Your task to perform on an android device: uninstall "NewsBreak: Local News & Alerts" Image 0: 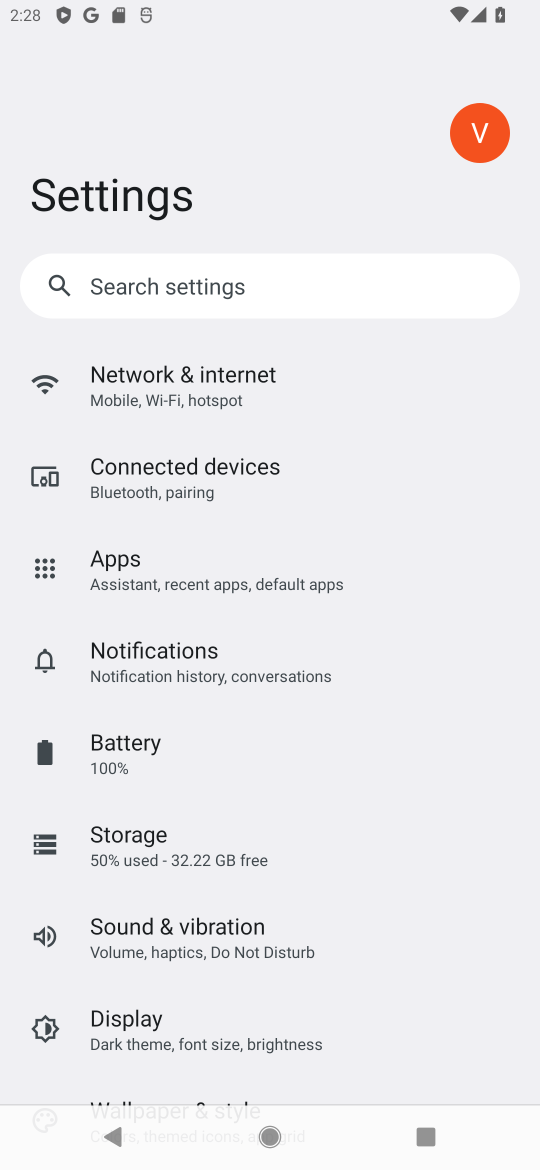
Step 0: press home button
Your task to perform on an android device: uninstall "NewsBreak: Local News & Alerts" Image 1: 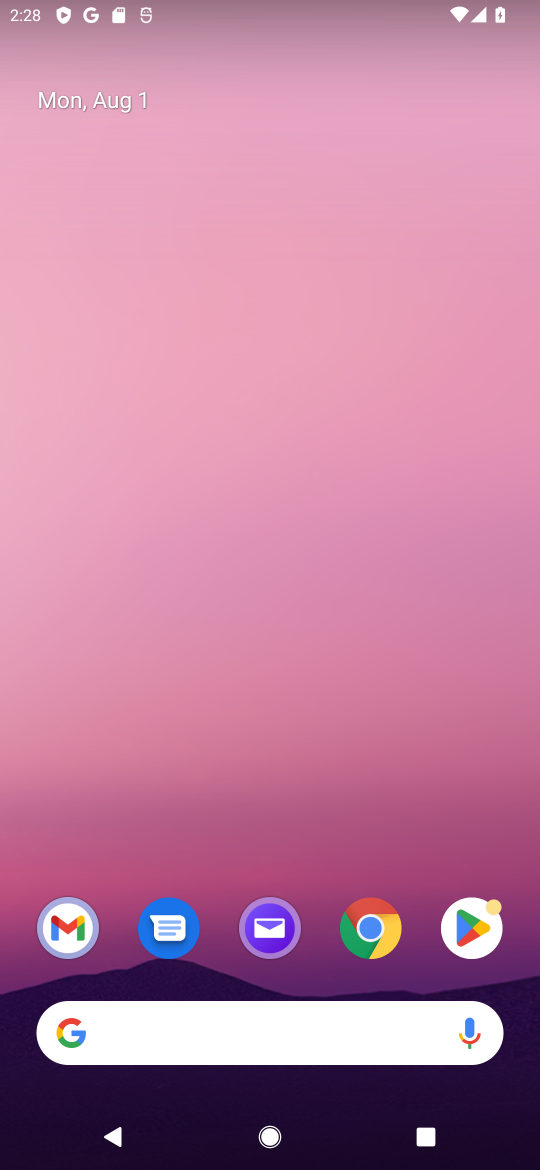
Step 1: click (462, 924)
Your task to perform on an android device: uninstall "NewsBreak: Local News & Alerts" Image 2: 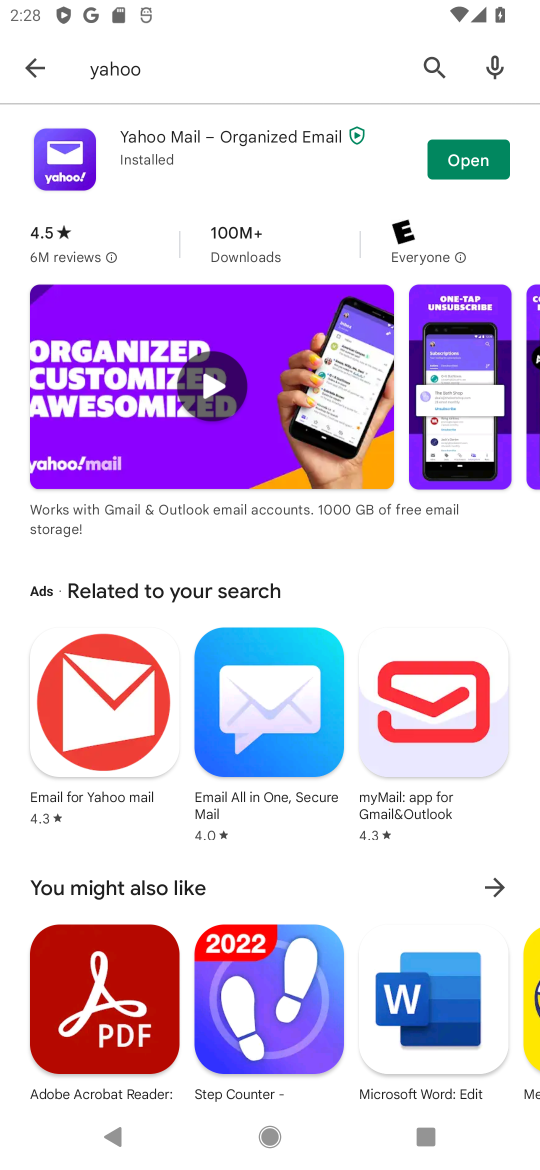
Step 2: click (423, 63)
Your task to perform on an android device: uninstall "NewsBreak: Local News & Alerts" Image 3: 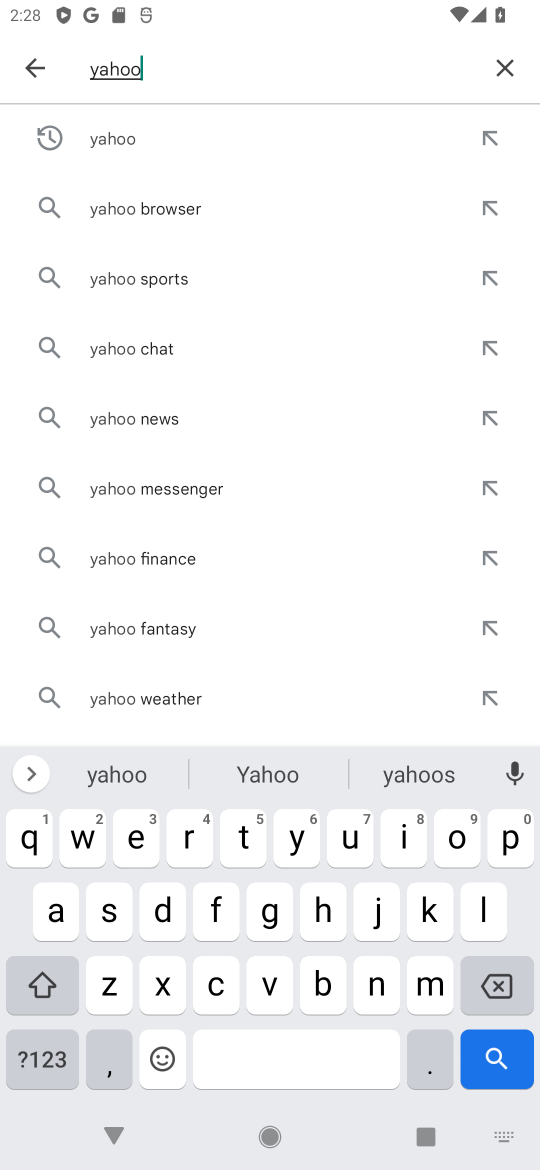
Step 3: click (497, 67)
Your task to perform on an android device: uninstall "NewsBreak: Local News & Alerts" Image 4: 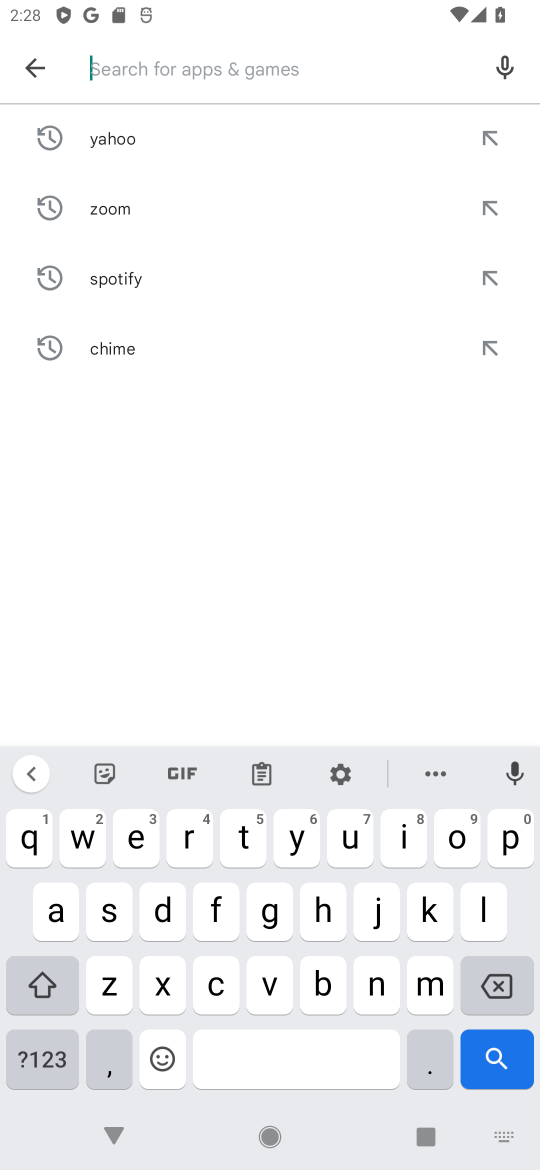
Step 4: click (379, 993)
Your task to perform on an android device: uninstall "NewsBreak: Local News & Alerts" Image 5: 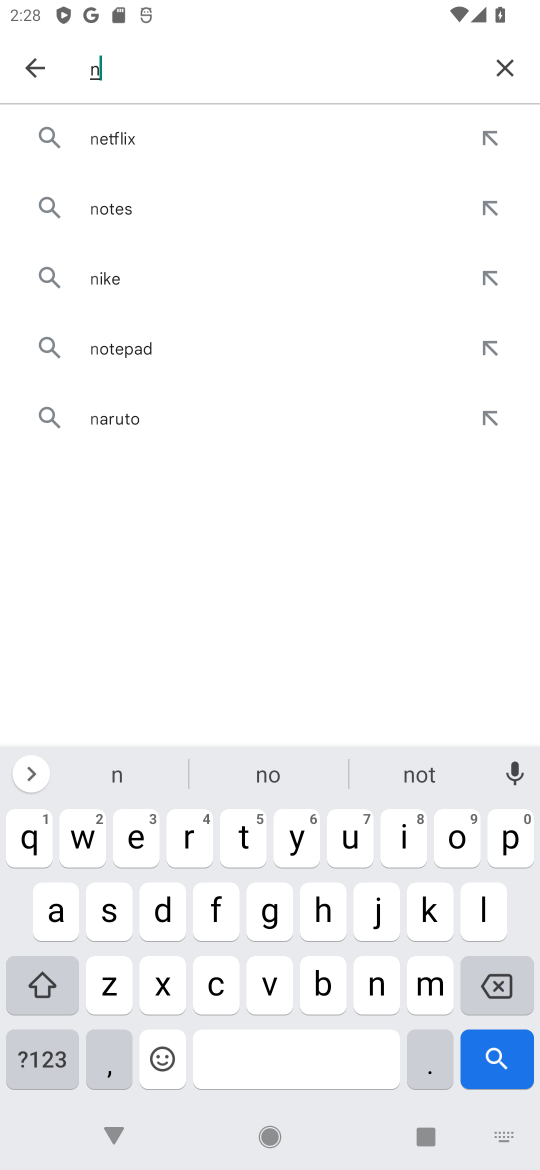
Step 5: click (135, 842)
Your task to perform on an android device: uninstall "NewsBreak: Local News & Alerts" Image 6: 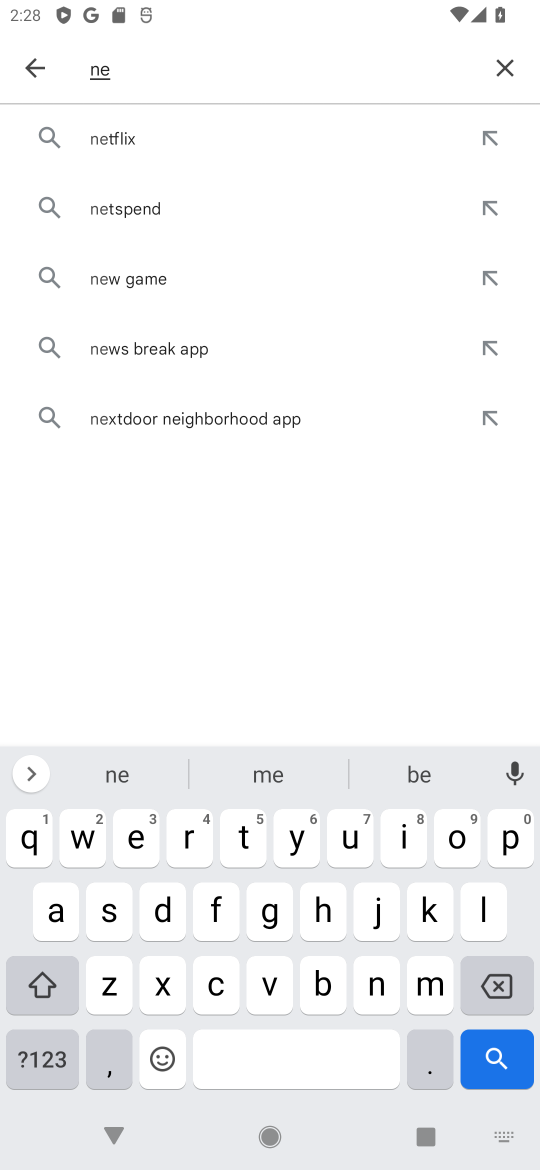
Step 6: click (74, 836)
Your task to perform on an android device: uninstall "NewsBreak: Local News & Alerts" Image 7: 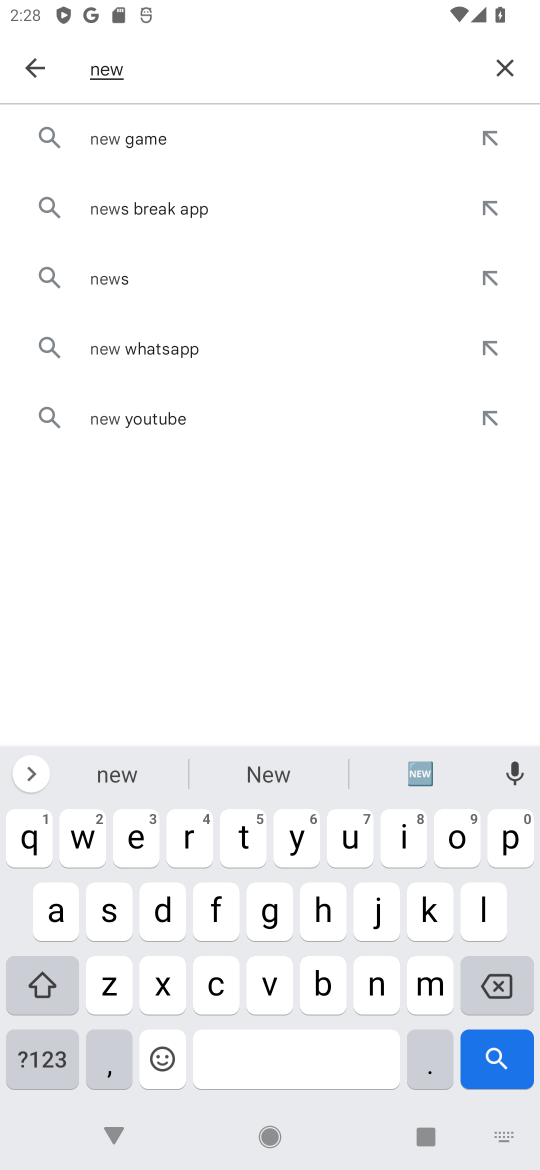
Step 7: click (178, 199)
Your task to perform on an android device: uninstall "NewsBreak: Local News & Alerts" Image 8: 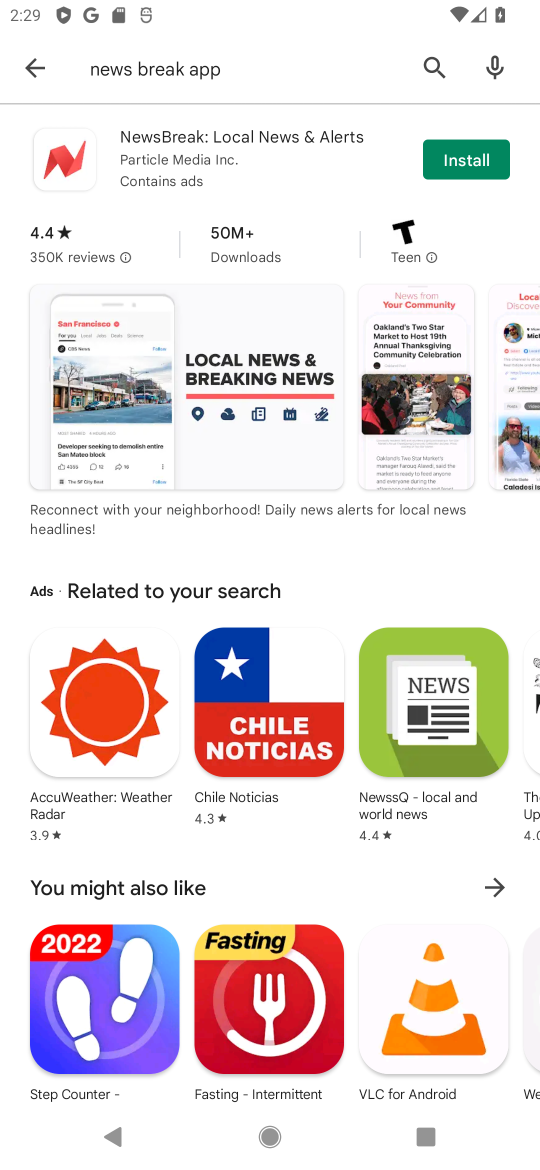
Step 8: task complete